Your task to perform on an android device: Open the web browser Image 0: 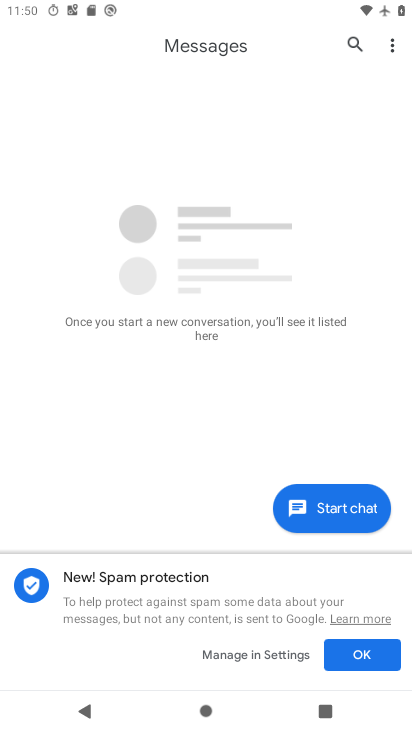
Step 0: press home button
Your task to perform on an android device: Open the web browser Image 1: 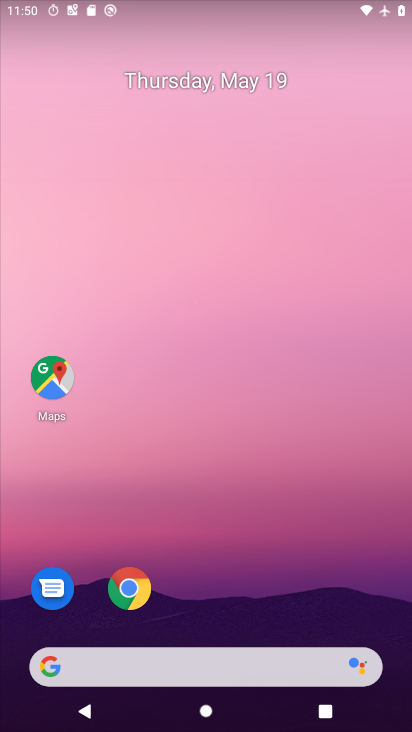
Step 1: click (121, 594)
Your task to perform on an android device: Open the web browser Image 2: 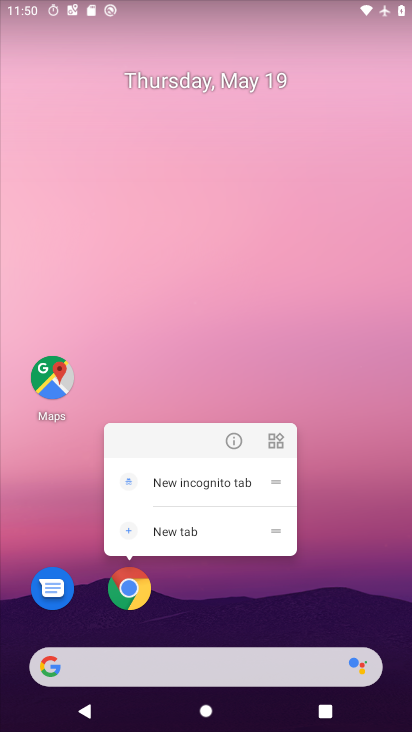
Step 2: click (129, 589)
Your task to perform on an android device: Open the web browser Image 3: 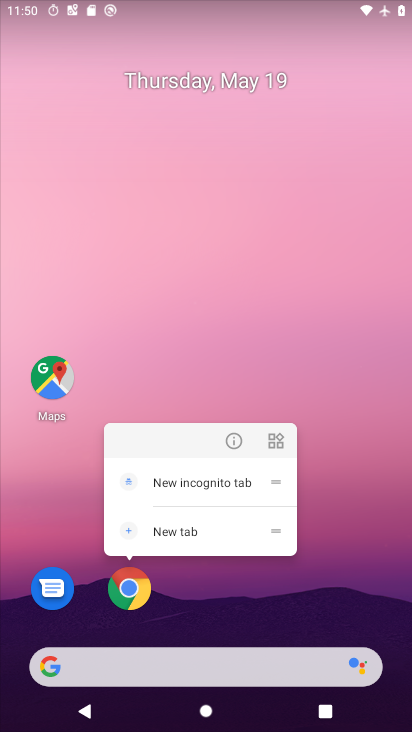
Step 3: click (129, 589)
Your task to perform on an android device: Open the web browser Image 4: 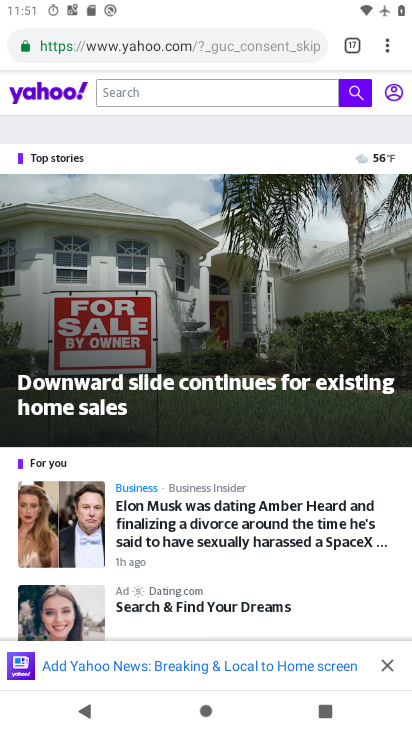
Step 4: task complete